Your task to perform on an android device: Open Maps and search for coffee Image 0: 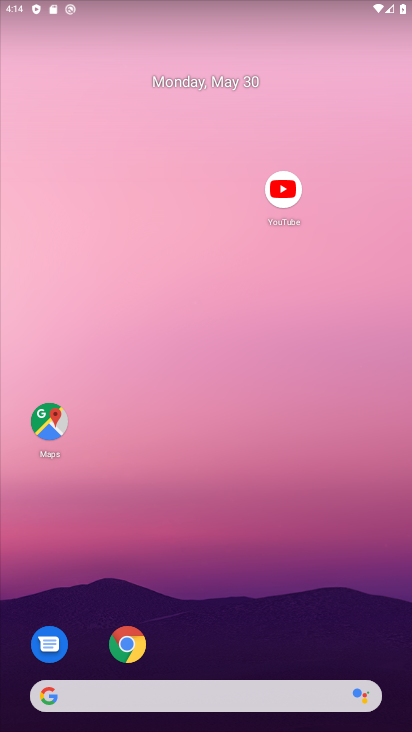
Step 0: click (48, 430)
Your task to perform on an android device: Open Maps and search for coffee Image 1: 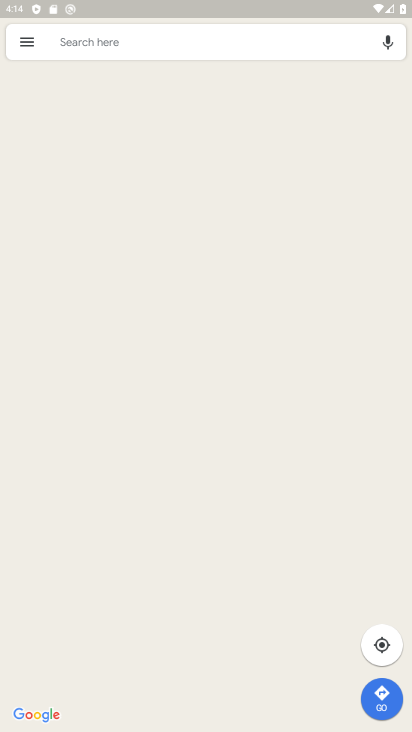
Step 1: click (309, 38)
Your task to perform on an android device: Open Maps and search for coffee Image 2: 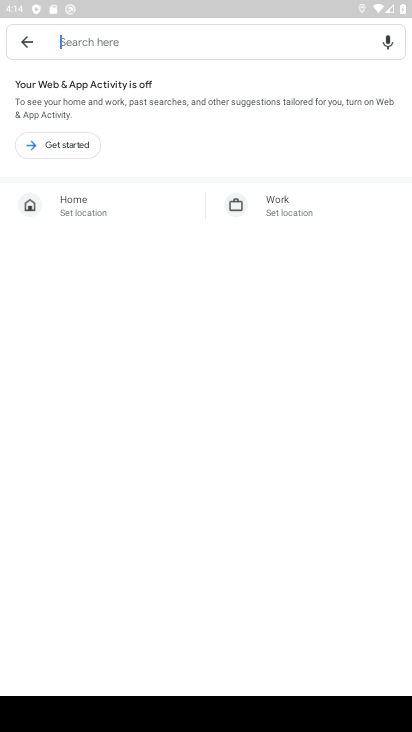
Step 2: type "coffee"
Your task to perform on an android device: Open Maps and search for coffee Image 3: 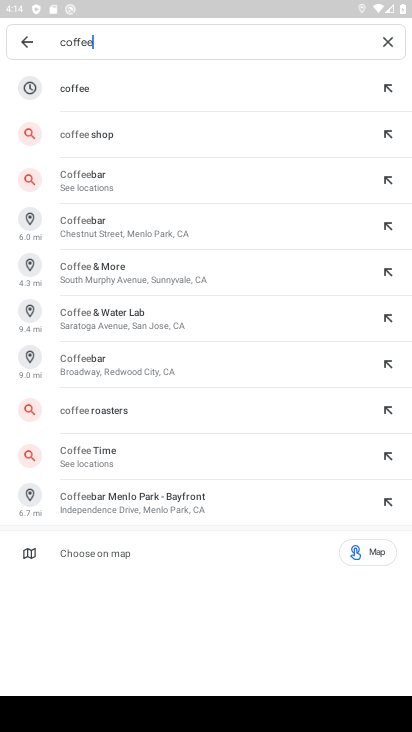
Step 3: click (89, 126)
Your task to perform on an android device: Open Maps and search for coffee Image 4: 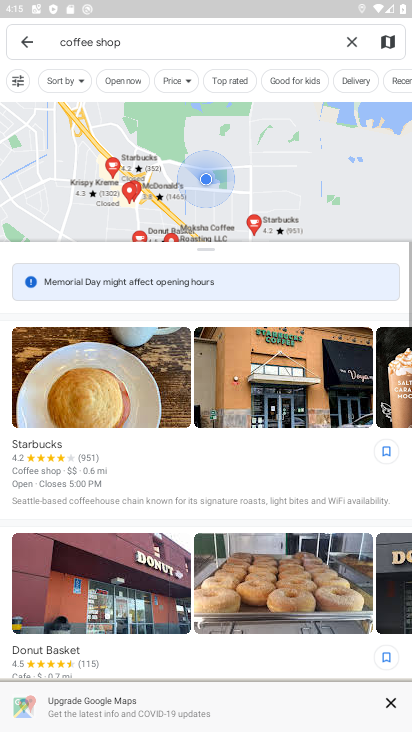
Step 4: task complete